Your task to perform on an android device: Open Yahoo.com Image 0: 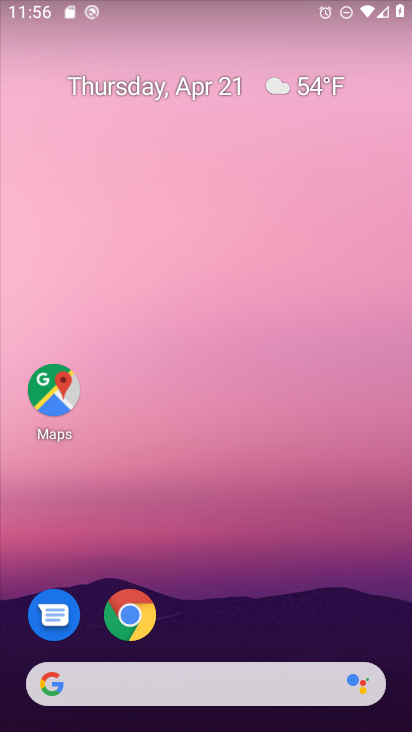
Step 0: click (138, 610)
Your task to perform on an android device: Open Yahoo.com Image 1: 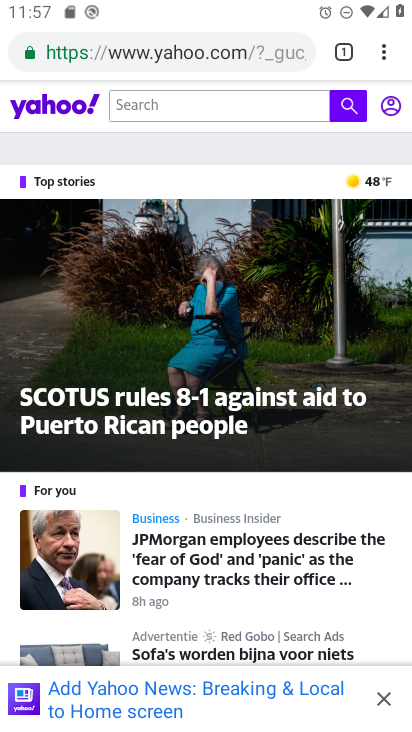
Step 1: task complete